Your task to perform on an android device: Search for Italian restaurants on Maps Image 0: 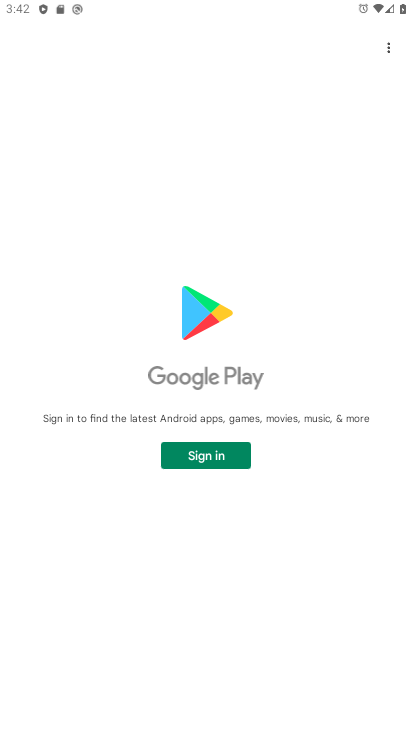
Step 0: press home button
Your task to perform on an android device: Search for Italian restaurants on Maps Image 1: 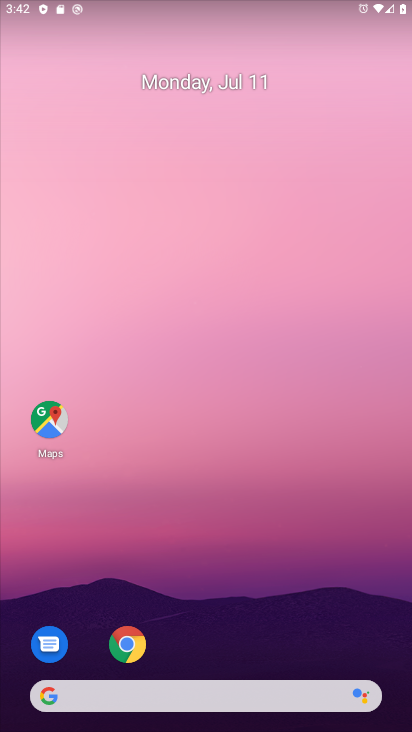
Step 1: drag from (227, 697) to (259, 80)
Your task to perform on an android device: Search for Italian restaurants on Maps Image 2: 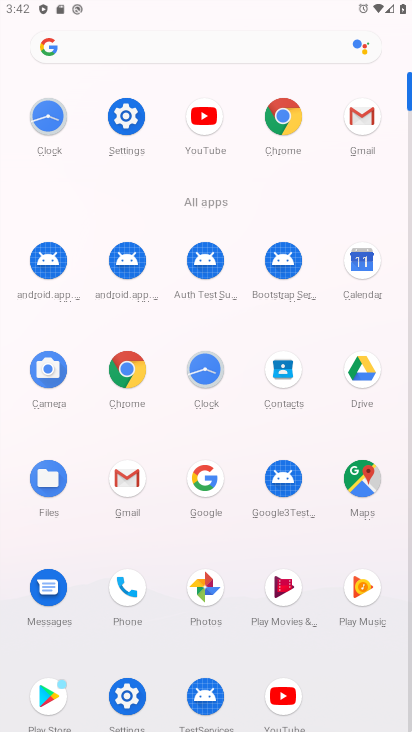
Step 2: click (349, 480)
Your task to perform on an android device: Search for Italian restaurants on Maps Image 3: 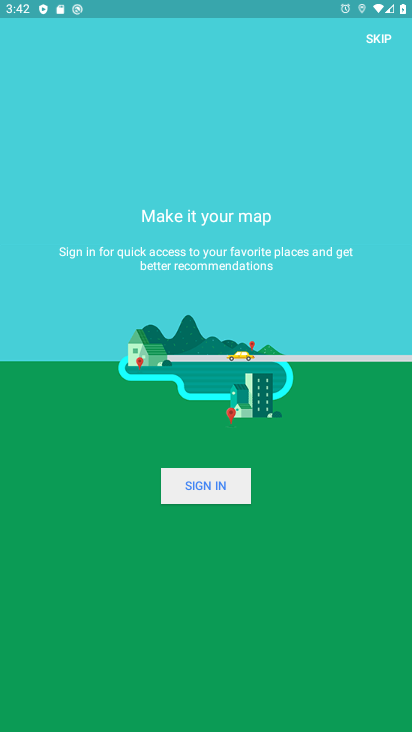
Step 3: click (381, 35)
Your task to perform on an android device: Search for Italian restaurants on Maps Image 4: 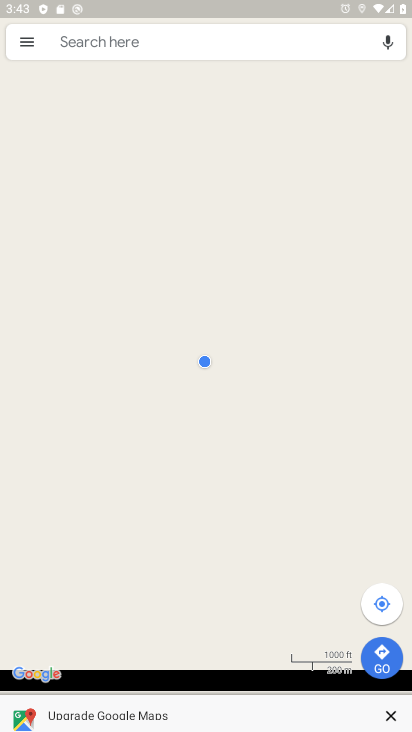
Step 4: click (228, 38)
Your task to perform on an android device: Search for Italian restaurants on Maps Image 5: 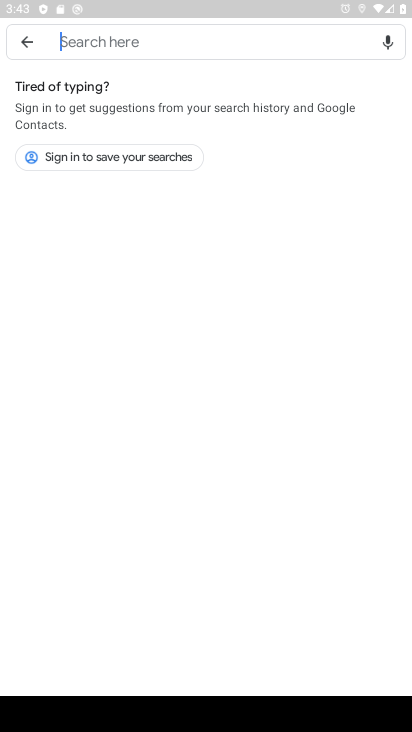
Step 5: type "italian restaurant"
Your task to perform on an android device: Search for Italian restaurants on Maps Image 6: 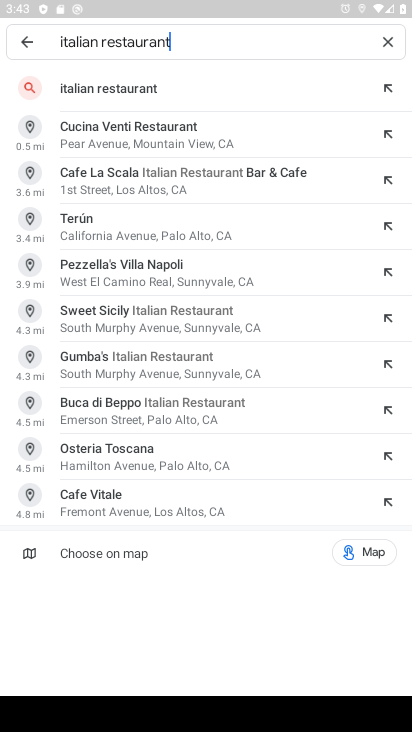
Step 6: click (165, 99)
Your task to perform on an android device: Search for Italian restaurants on Maps Image 7: 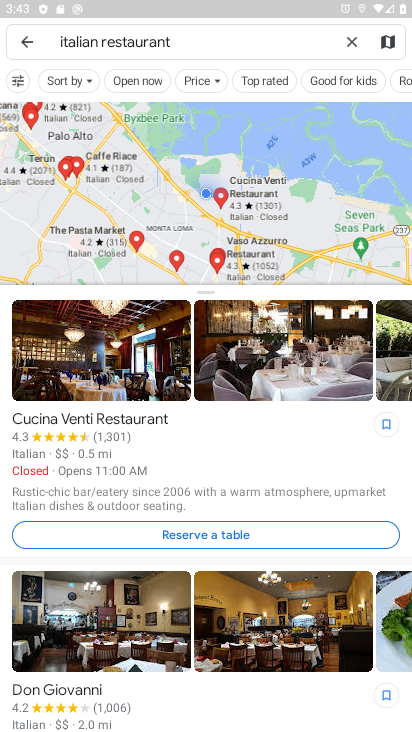
Step 7: task complete